Your task to perform on an android device: Find coffee shops on Maps Image 0: 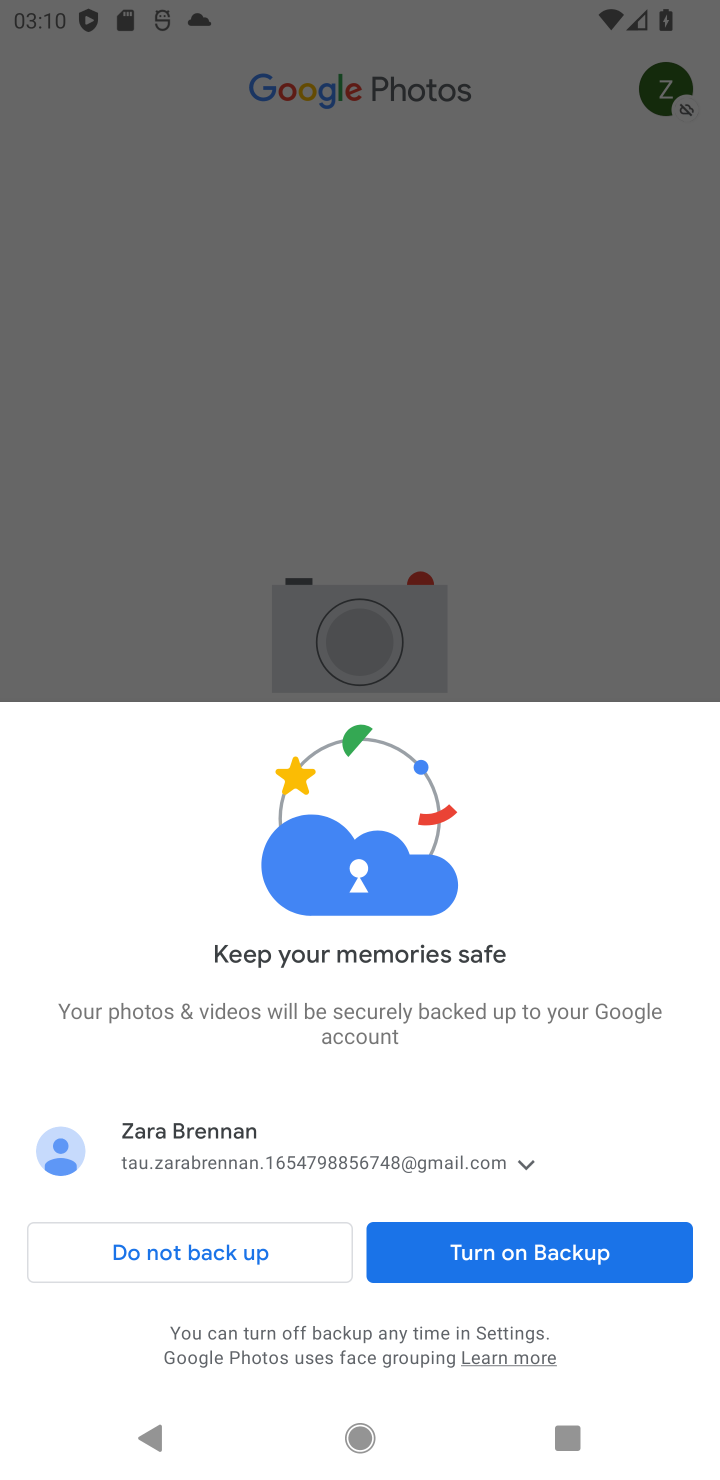
Step 0: press home button
Your task to perform on an android device: Find coffee shops on Maps Image 1: 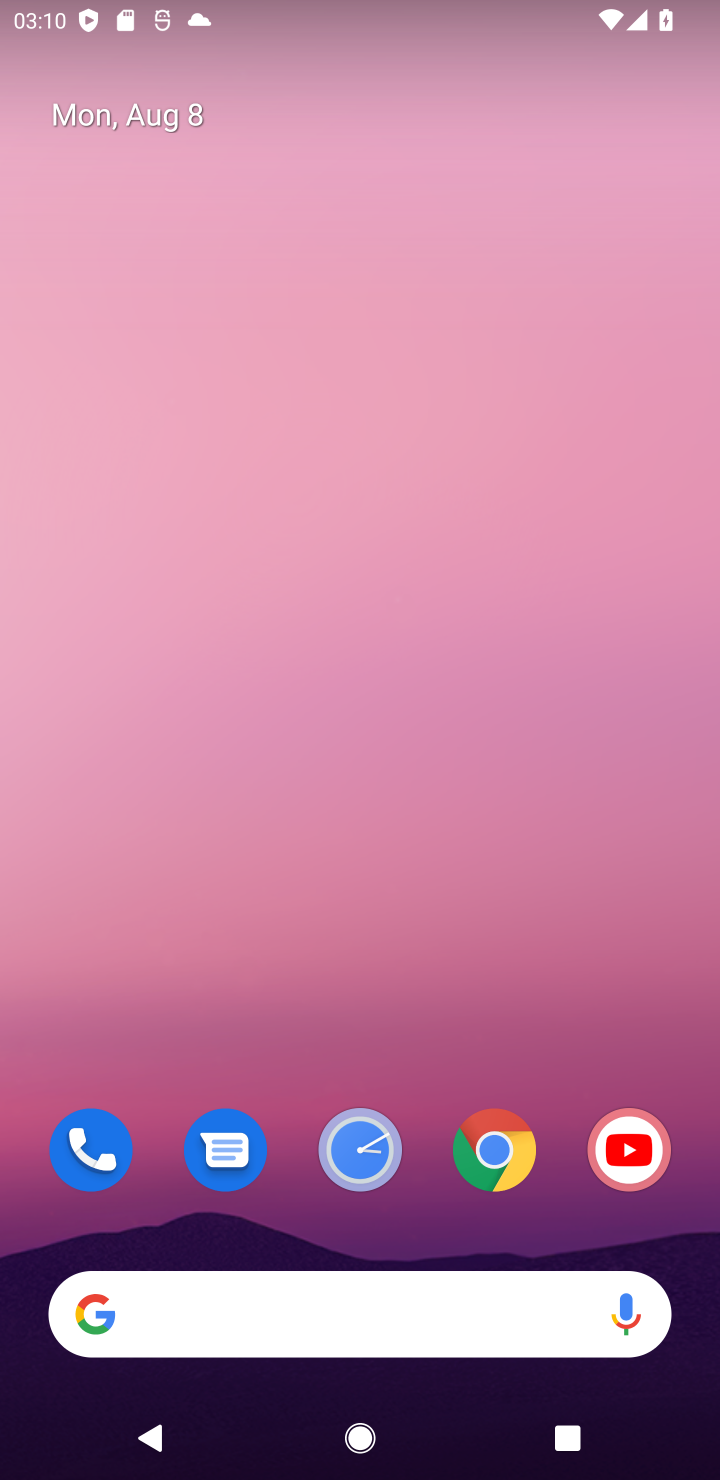
Step 1: drag from (14, 1397) to (385, 521)
Your task to perform on an android device: Find coffee shops on Maps Image 2: 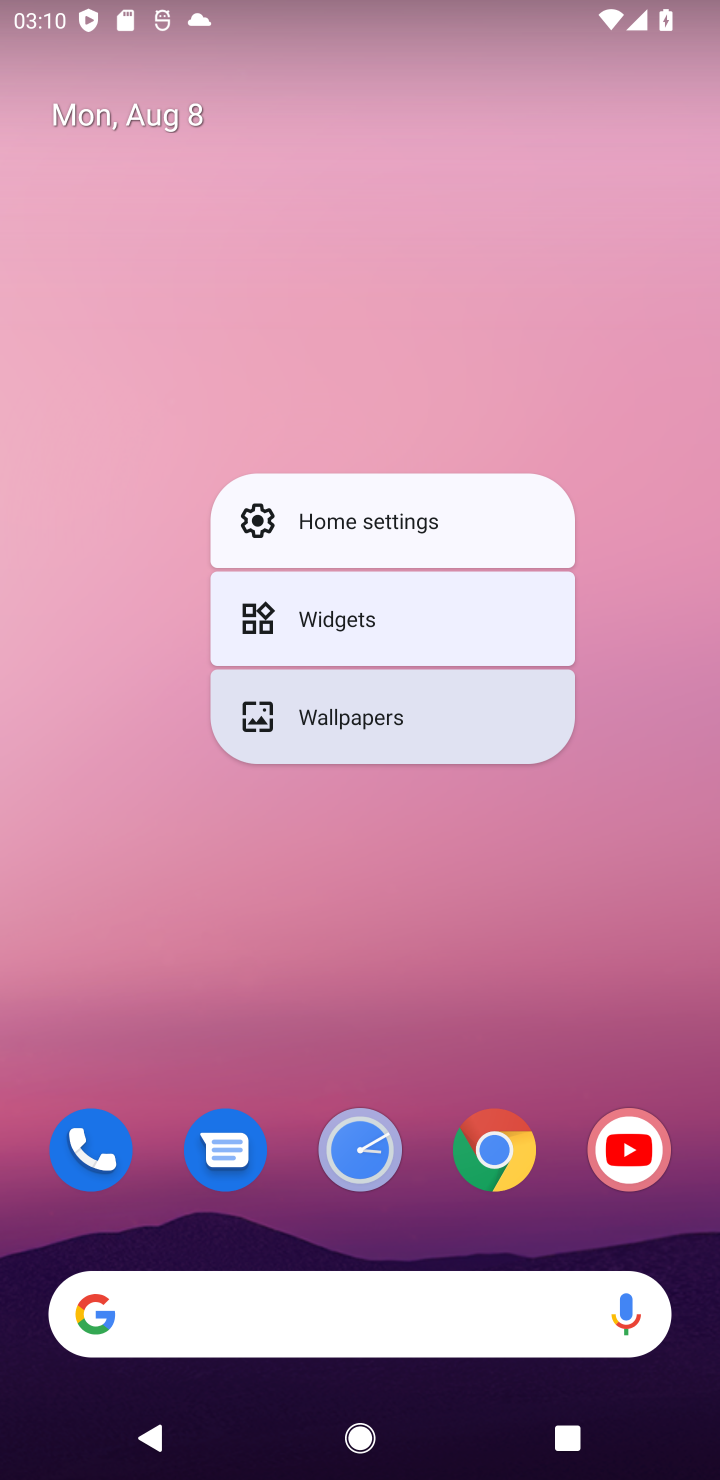
Step 2: click (21, 1435)
Your task to perform on an android device: Find coffee shops on Maps Image 3: 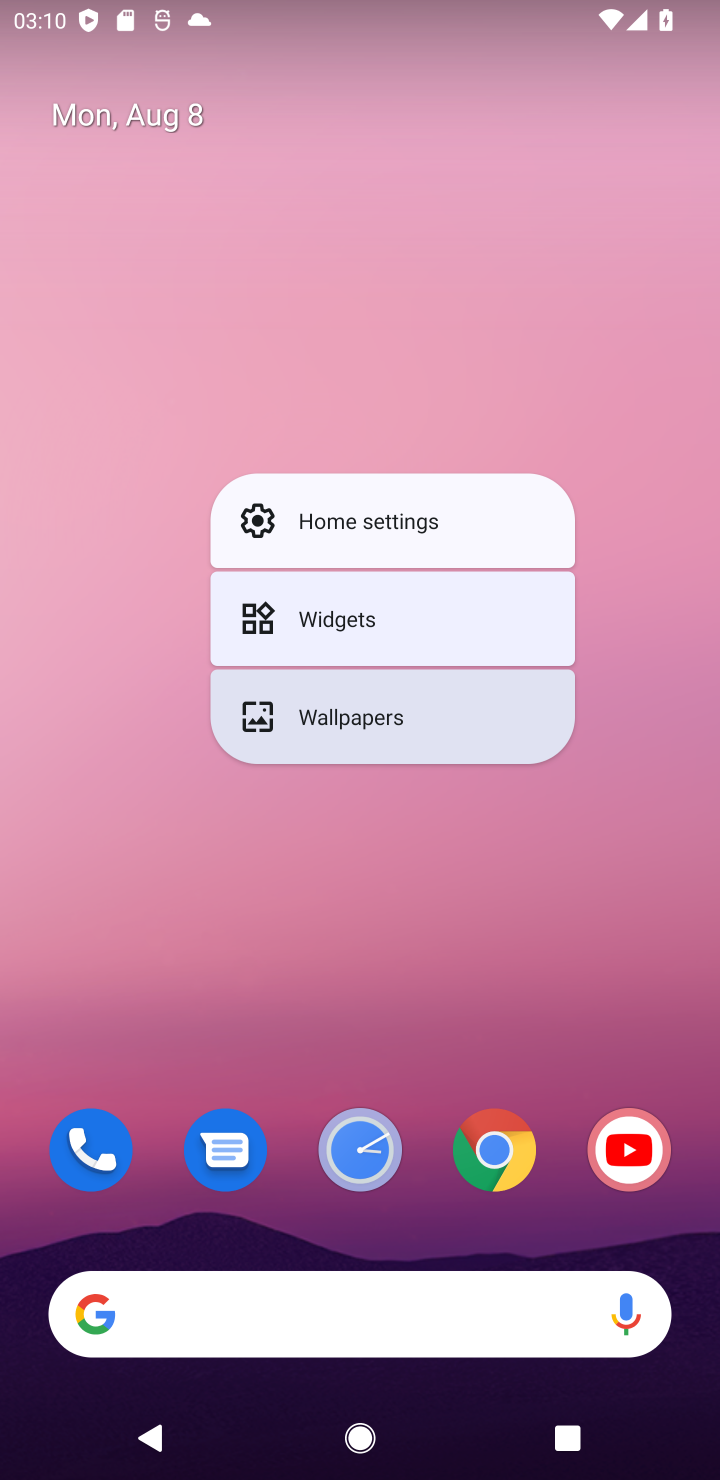
Step 3: drag from (10, 1460) to (397, 433)
Your task to perform on an android device: Find coffee shops on Maps Image 4: 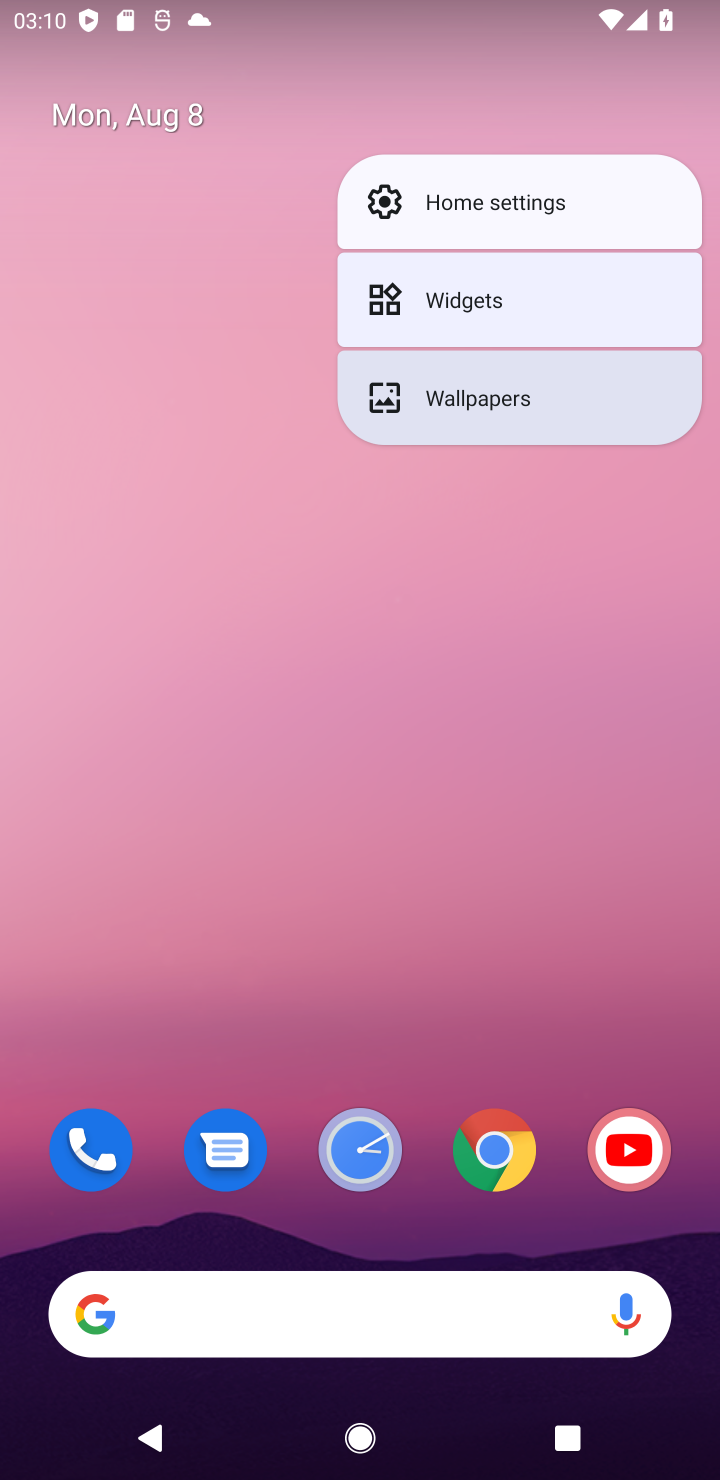
Step 4: drag from (51, 1400) to (597, 262)
Your task to perform on an android device: Find coffee shops on Maps Image 5: 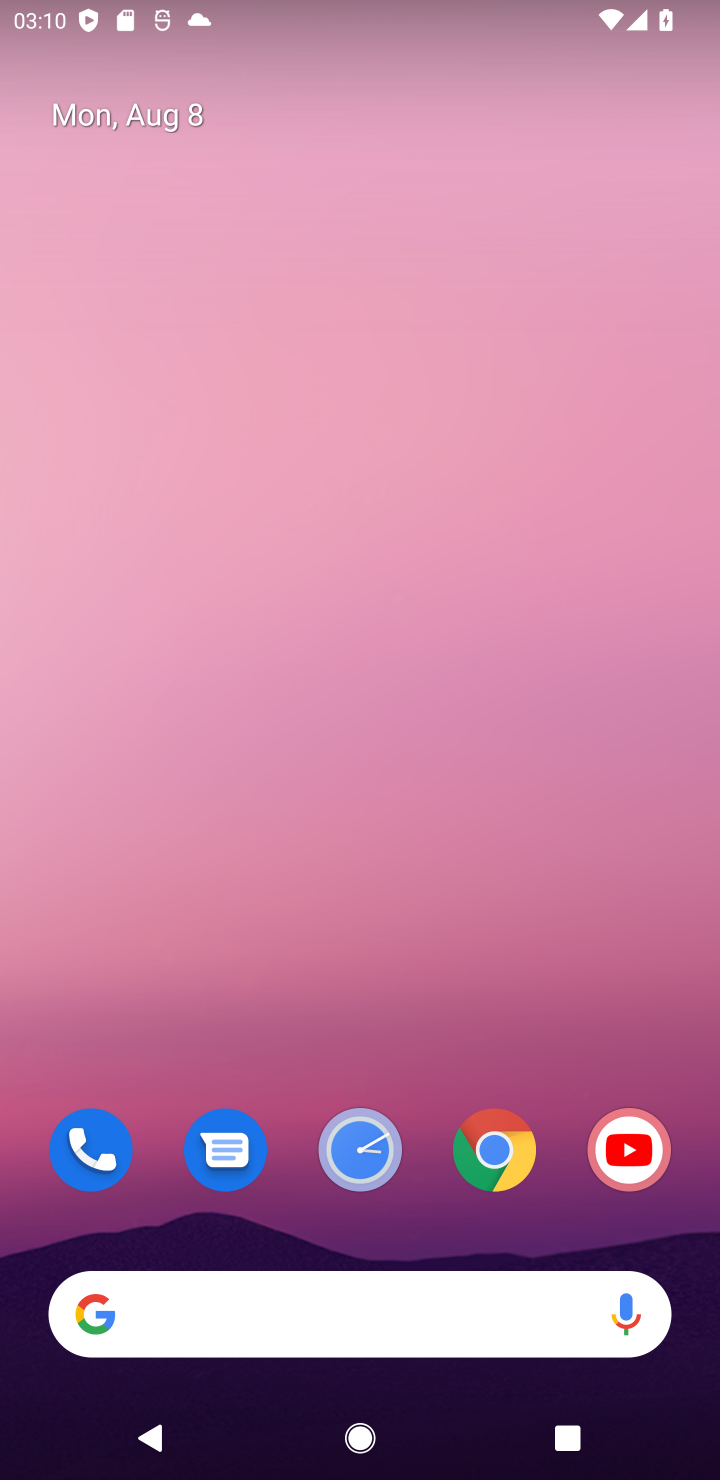
Step 5: drag from (44, 1394) to (425, 398)
Your task to perform on an android device: Find coffee shops on Maps Image 6: 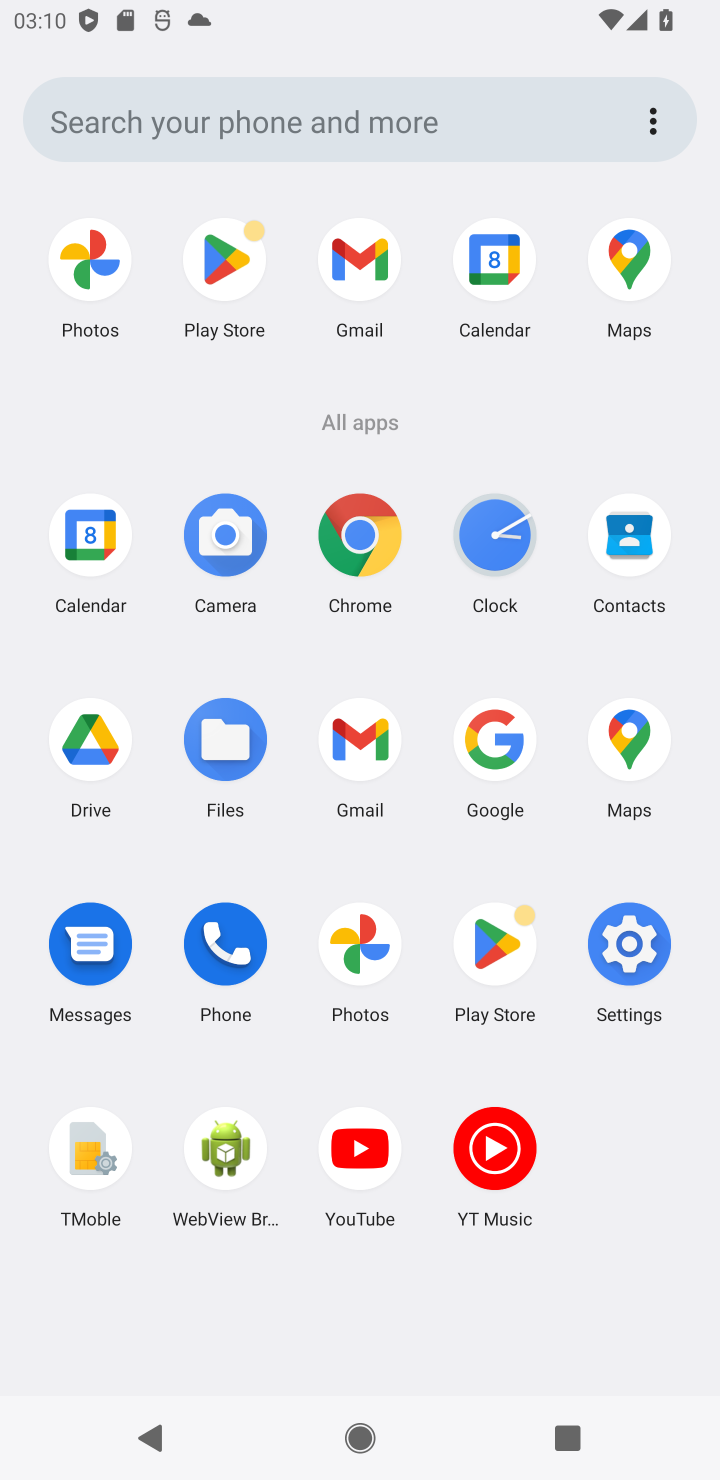
Step 6: click (609, 746)
Your task to perform on an android device: Find coffee shops on Maps Image 7: 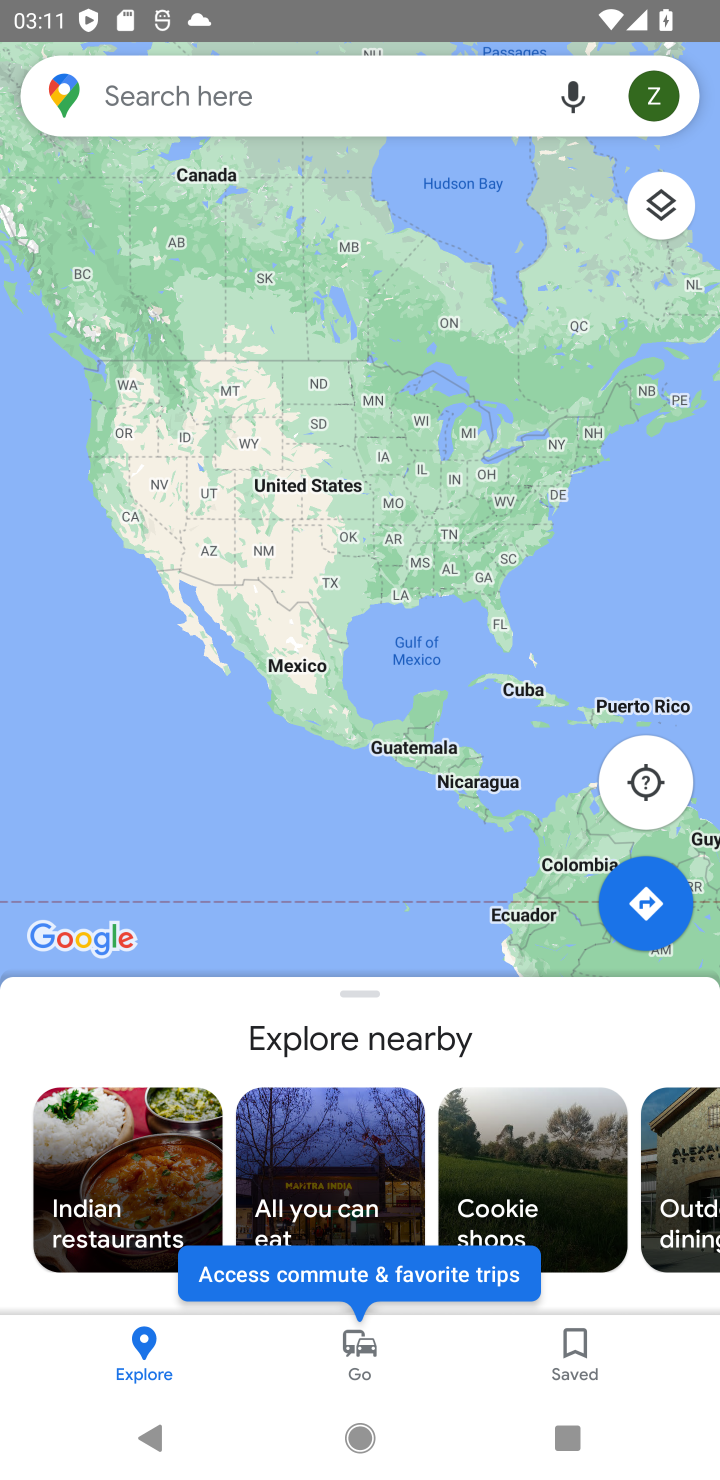
Step 7: click (183, 111)
Your task to perform on an android device: Find coffee shops on Maps Image 8: 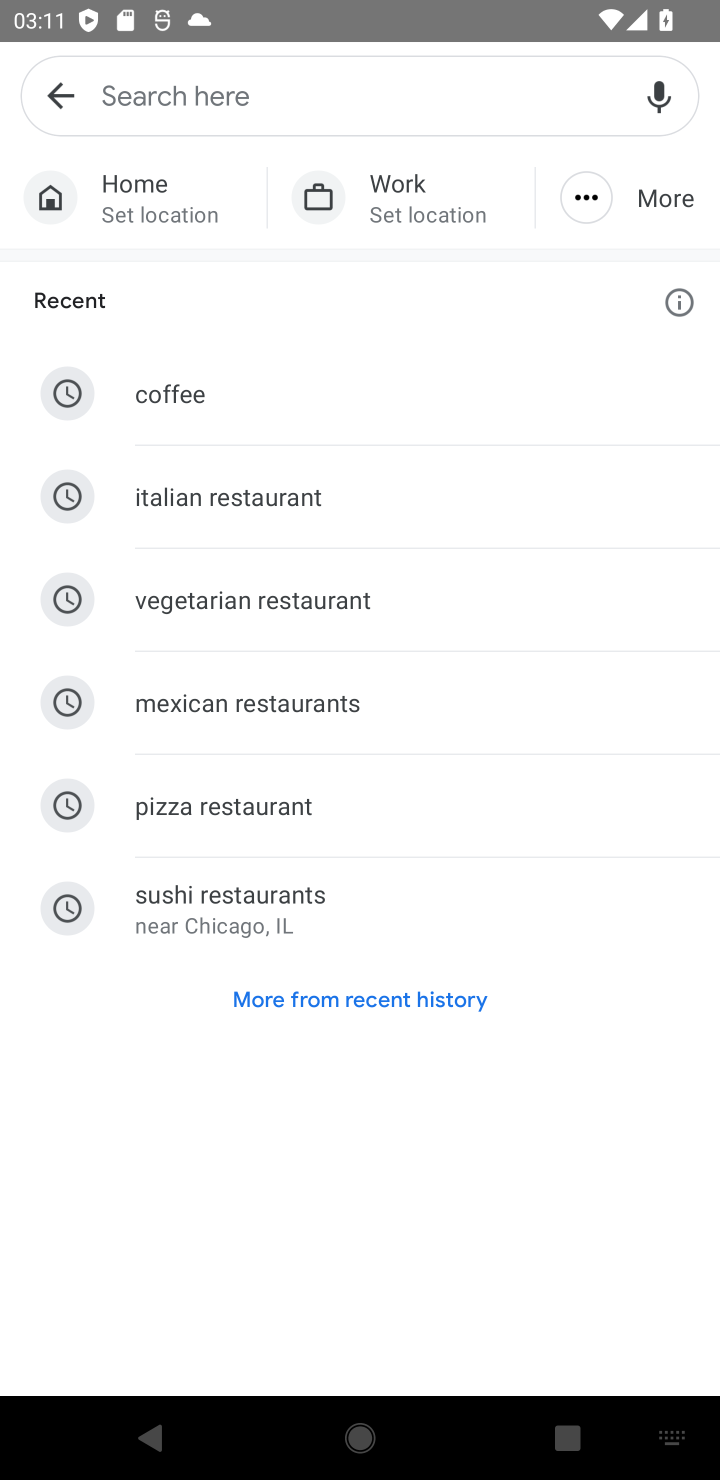
Step 8: type "coffee shops"
Your task to perform on an android device: Find coffee shops on Maps Image 9: 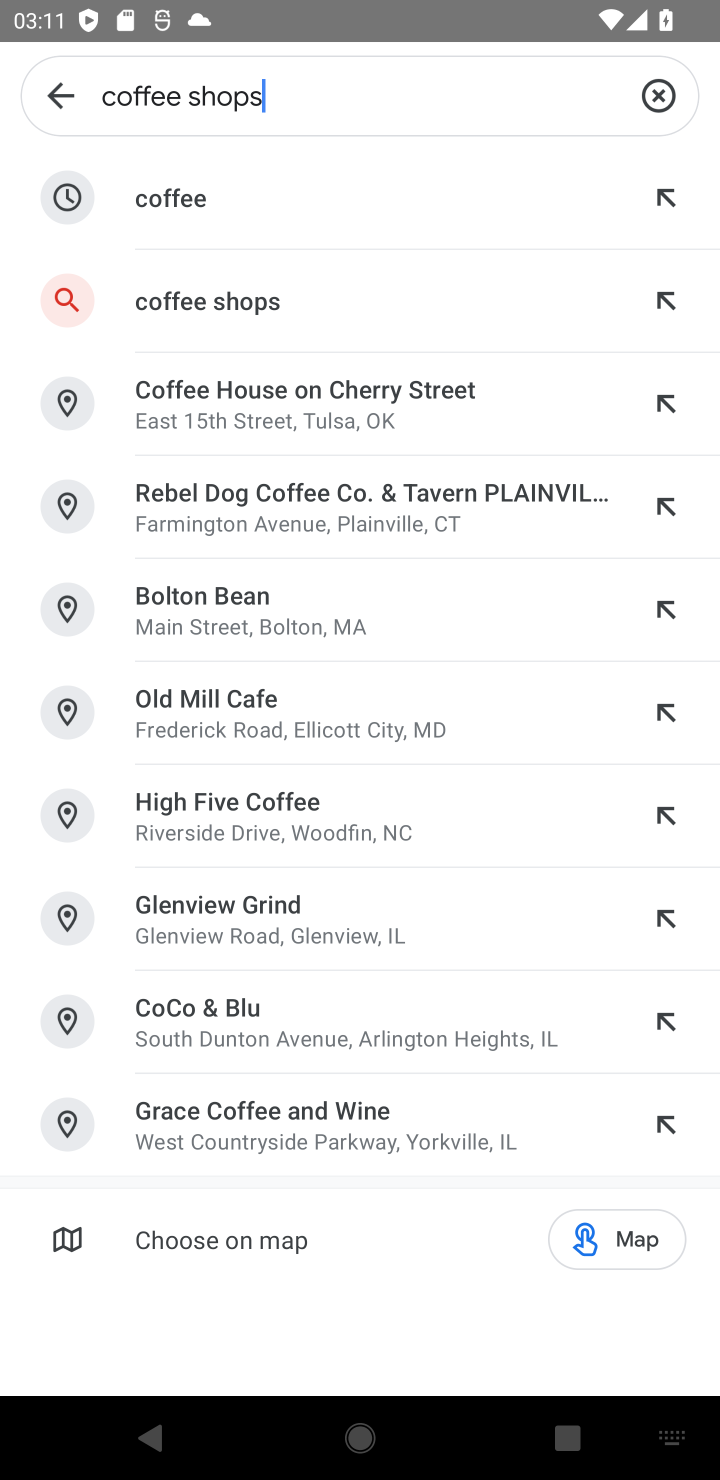
Step 9: click (252, 294)
Your task to perform on an android device: Find coffee shops on Maps Image 10: 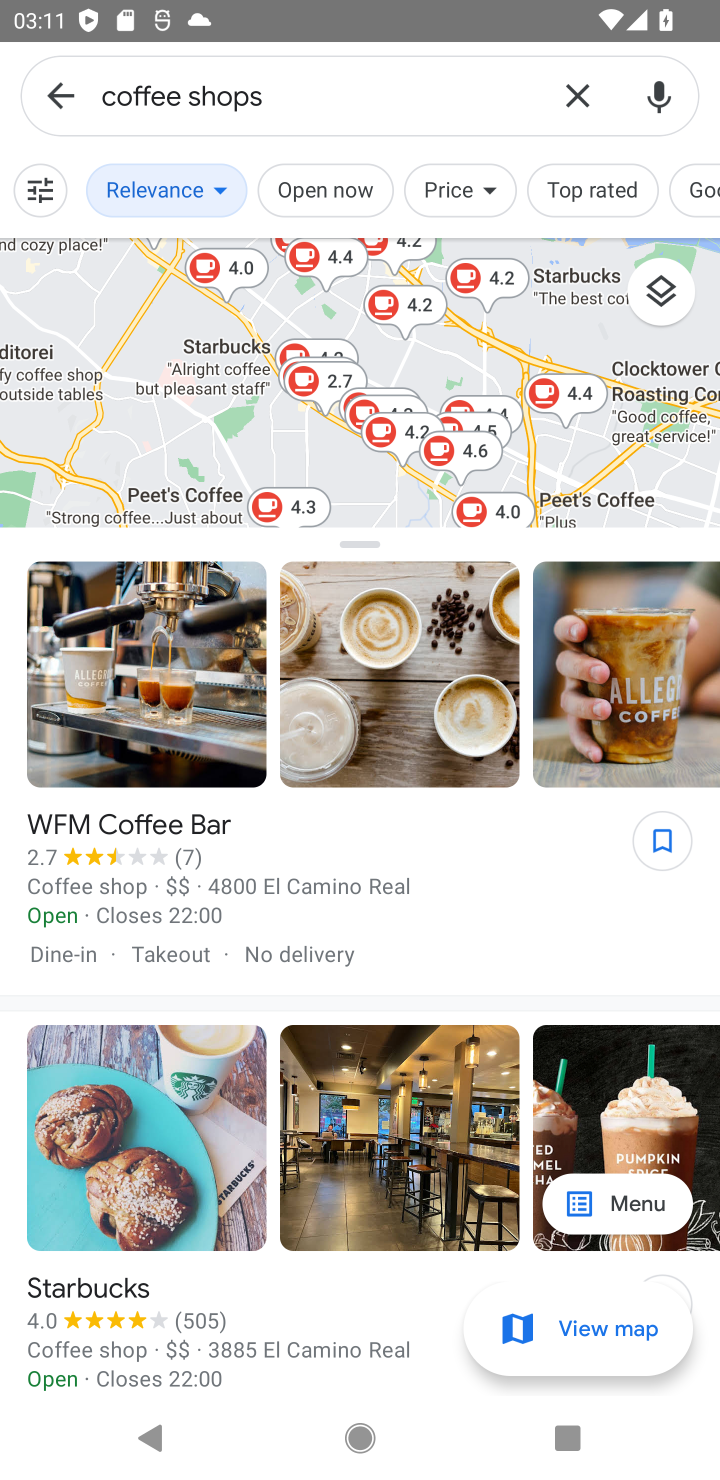
Step 10: task complete